Your task to perform on an android device: Open maps Image 0: 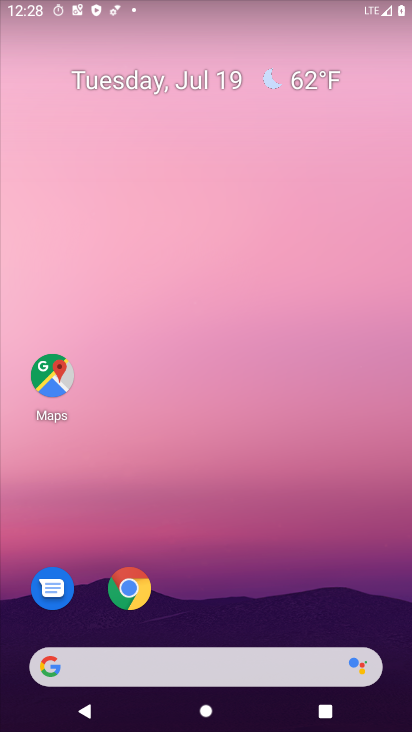
Step 0: click (52, 369)
Your task to perform on an android device: Open maps Image 1: 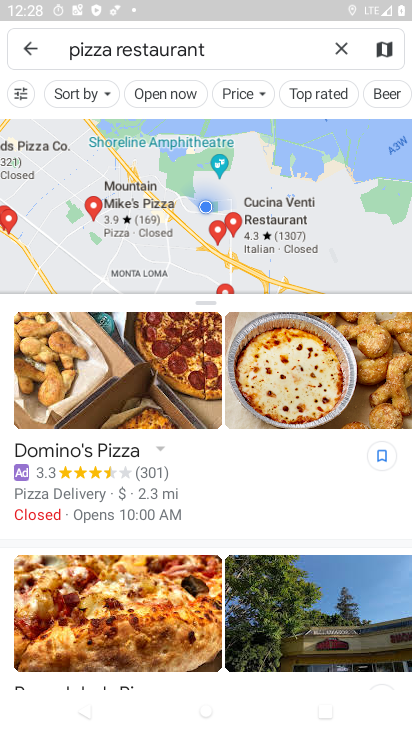
Step 1: task complete